Your task to perform on an android device: Open Chrome and go to settings Image 0: 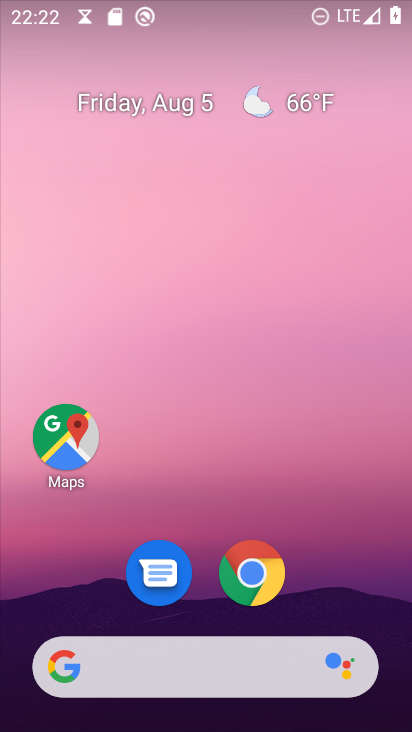
Step 0: click (252, 574)
Your task to perform on an android device: Open Chrome and go to settings Image 1: 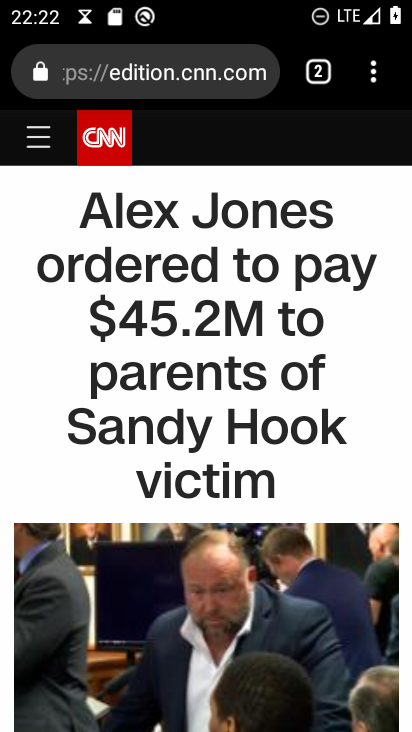
Step 1: click (376, 77)
Your task to perform on an android device: Open Chrome and go to settings Image 2: 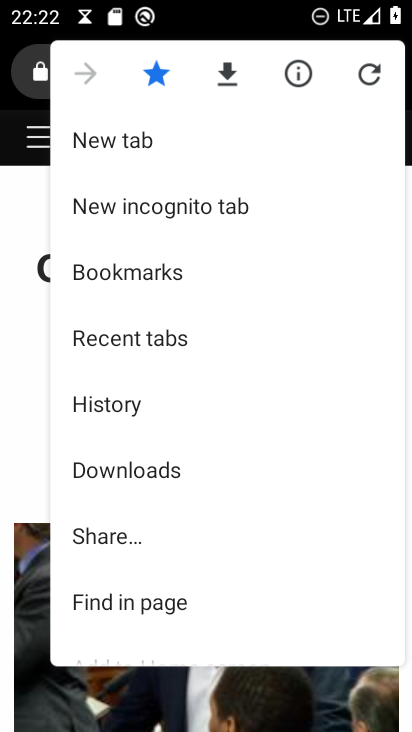
Step 2: drag from (155, 508) to (213, 365)
Your task to perform on an android device: Open Chrome and go to settings Image 3: 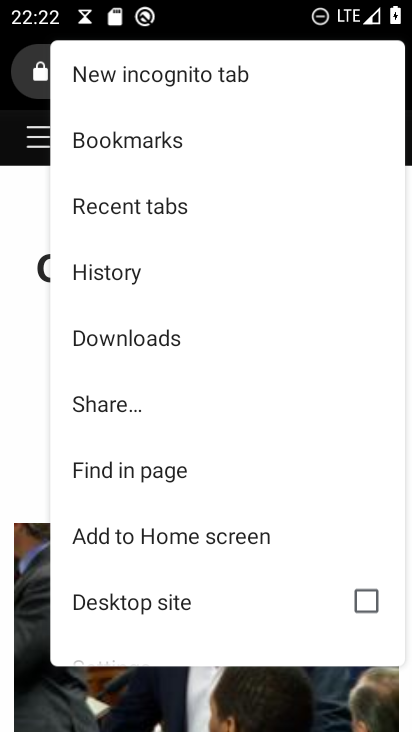
Step 3: drag from (165, 559) to (273, 362)
Your task to perform on an android device: Open Chrome and go to settings Image 4: 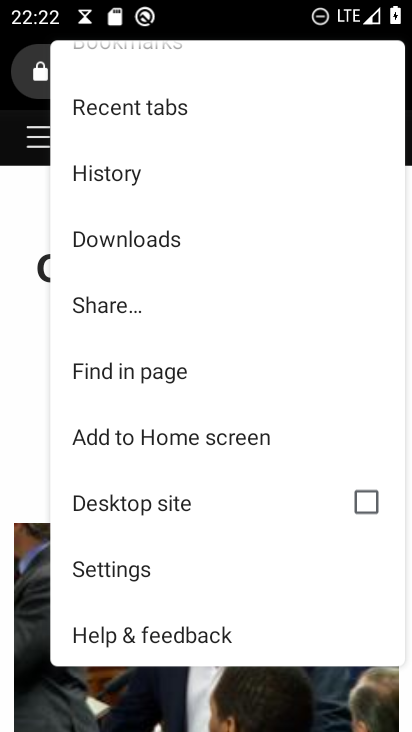
Step 4: click (142, 568)
Your task to perform on an android device: Open Chrome and go to settings Image 5: 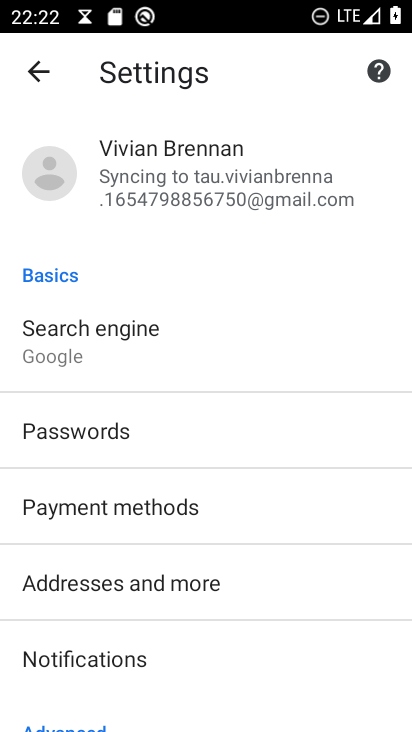
Step 5: task complete